Your task to perform on an android device: What's the weather like inToronto? Image 0: 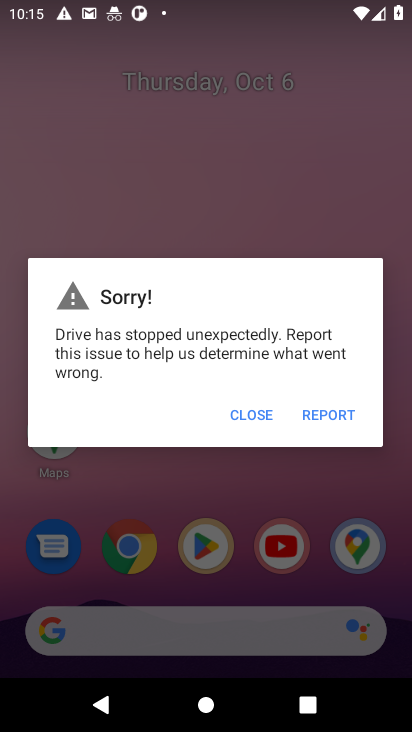
Step 0: click (246, 416)
Your task to perform on an android device: What's the weather like inToronto? Image 1: 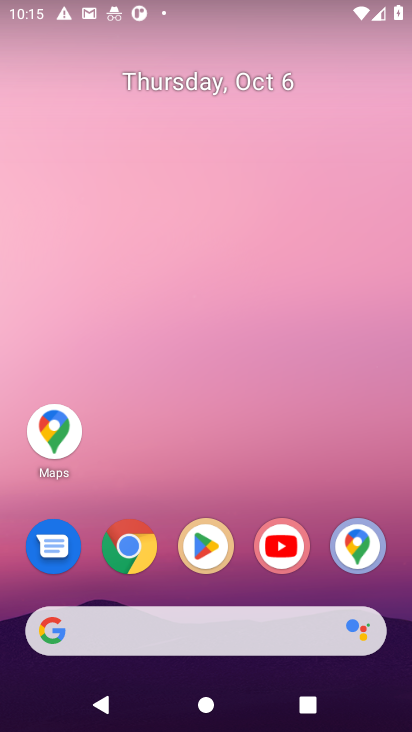
Step 1: click (125, 546)
Your task to perform on an android device: What's the weather like inToronto? Image 2: 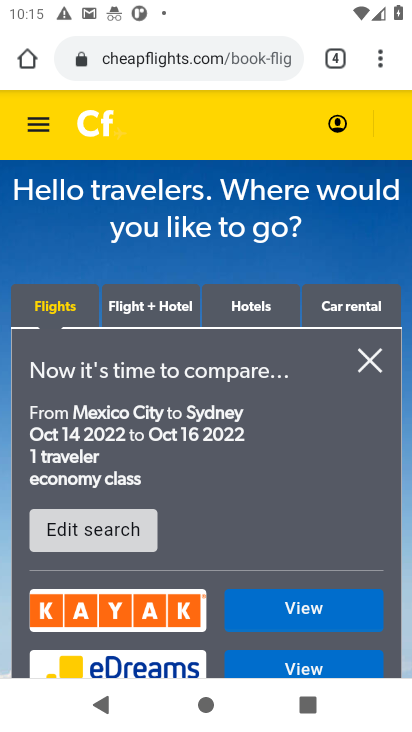
Step 2: click (177, 42)
Your task to perform on an android device: What's the weather like inToronto? Image 3: 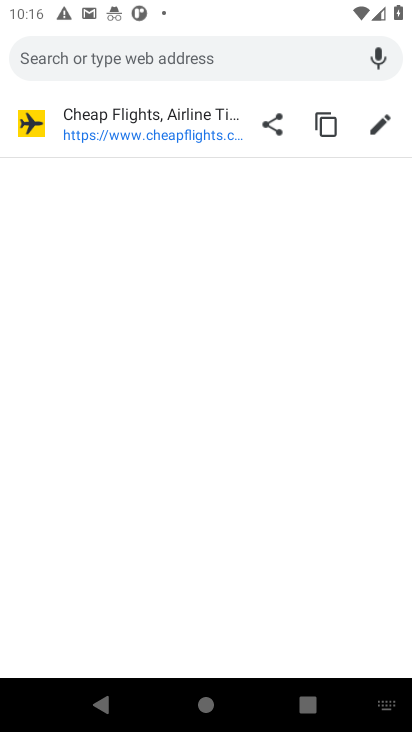
Step 3: type "weather in Toronto?"
Your task to perform on an android device: What's the weather like inToronto? Image 4: 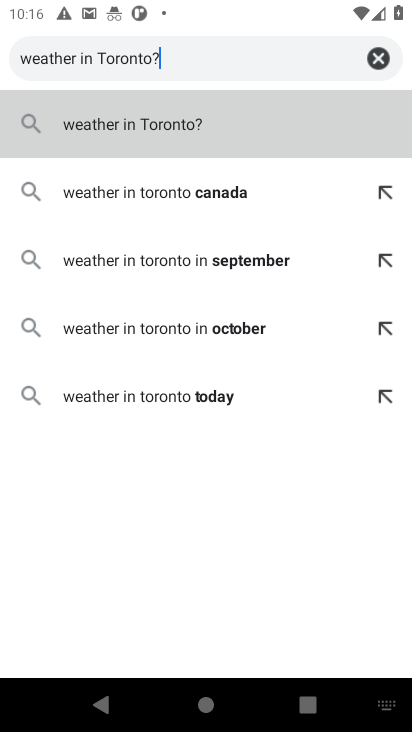
Step 4: click (113, 118)
Your task to perform on an android device: What's the weather like inToronto? Image 5: 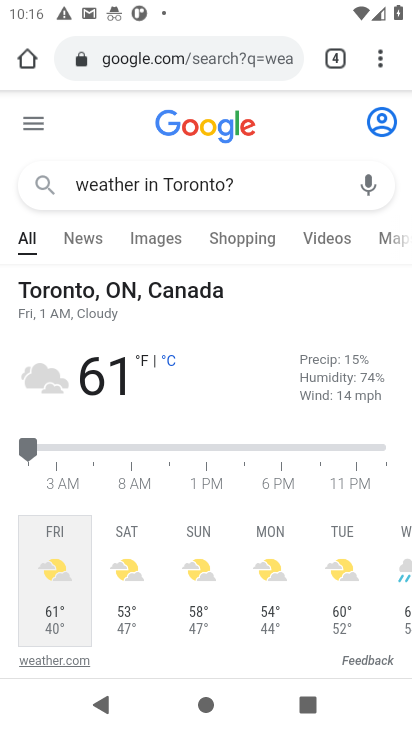
Step 5: task complete